Your task to perform on an android device: Show me productivity apps on the Play Store Image 0: 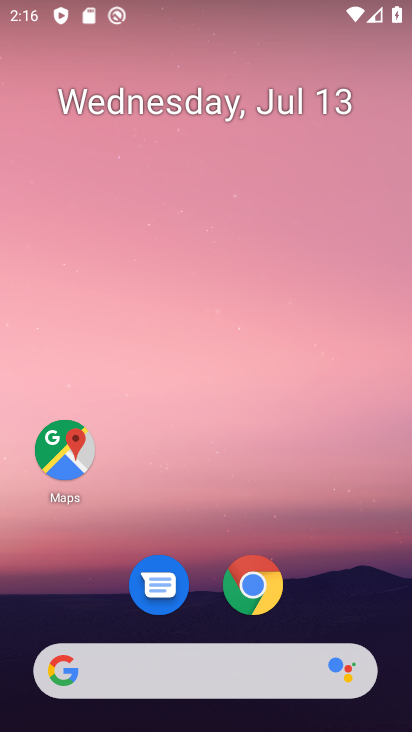
Step 0: press home button
Your task to perform on an android device: Show me productivity apps on the Play Store Image 1: 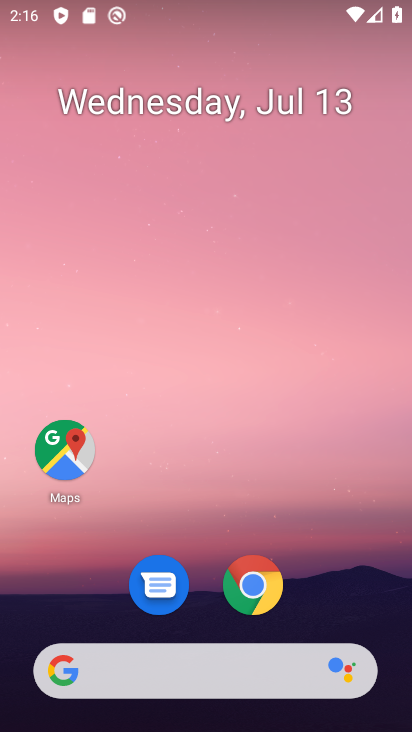
Step 1: drag from (249, 560) to (327, 118)
Your task to perform on an android device: Show me productivity apps on the Play Store Image 2: 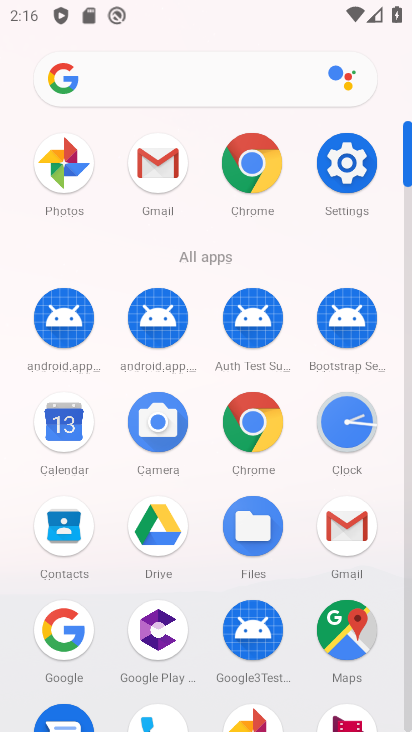
Step 2: drag from (180, 651) to (319, 117)
Your task to perform on an android device: Show me productivity apps on the Play Store Image 3: 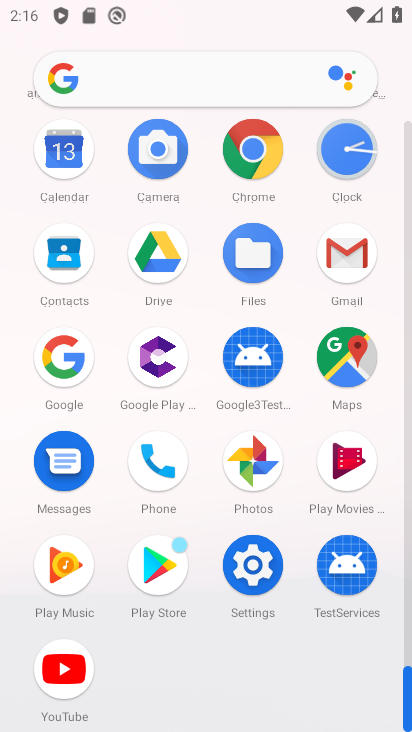
Step 3: click (157, 569)
Your task to perform on an android device: Show me productivity apps on the Play Store Image 4: 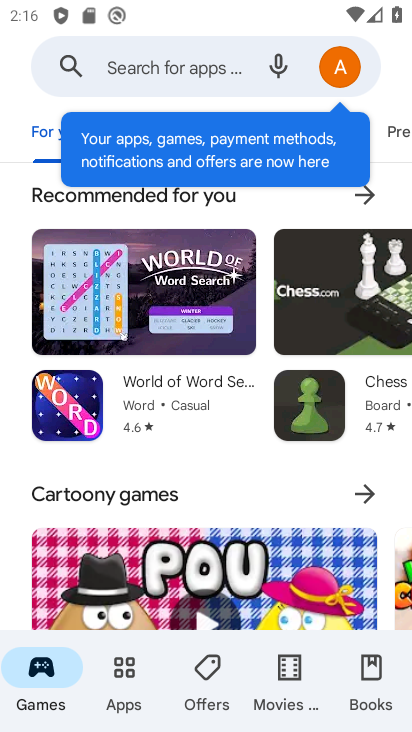
Step 4: click (126, 697)
Your task to perform on an android device: Show me productivity apps on the Play Store Image 5: 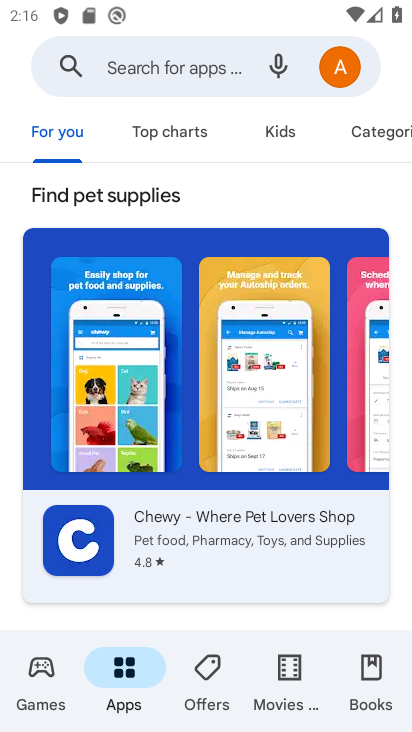
Step 5: click (361, 130)
Your task to perform on an android device: Show me productivity apps on the Play Store Image 6: 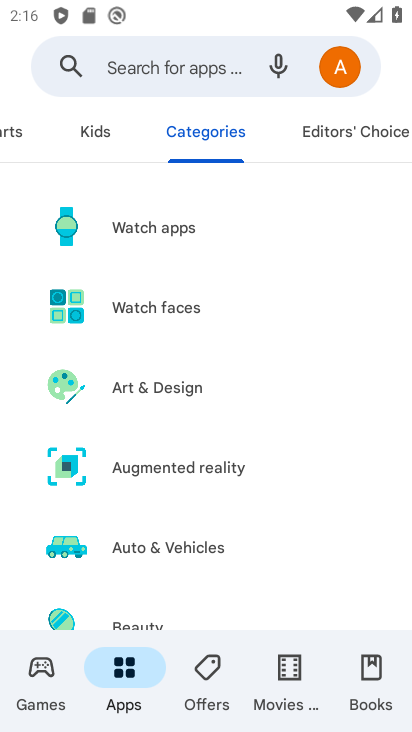
Step 6: drag from (226, 629) to (375, 76)
Your task to perform on an android device: Show me productivity apps on the Play Store Image 7: 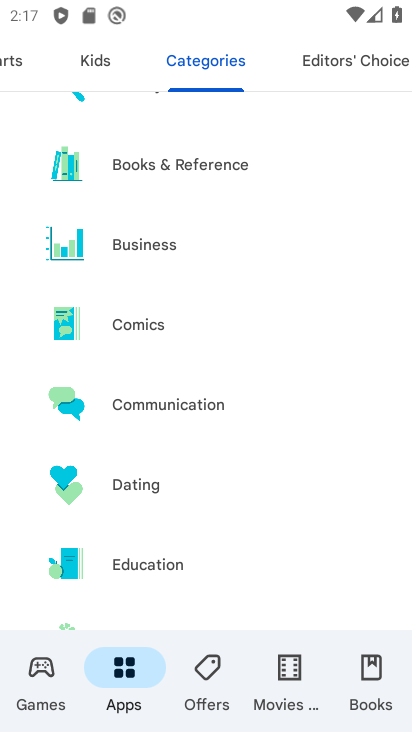
Step 7: drag from (218, 564) to (327, 78)
Your task to perform on an android device: Show me productivity apps on the Play Store Image 8: 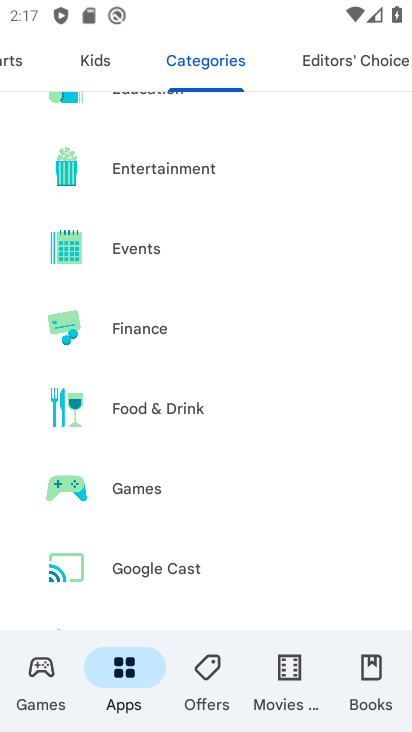
Step 8: drag from (194, 575) to (320, 31)
Your task to perform on an android device: Show me productivity apps on the Play Store Image 9: 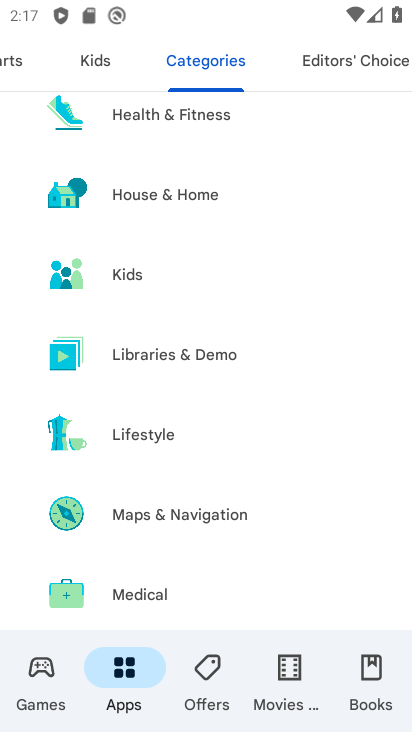
Step 9: drag from (214, 588) to (326, 84)
Your task to perform on an android device: Show me productivity apps on the Play Store Image 10: 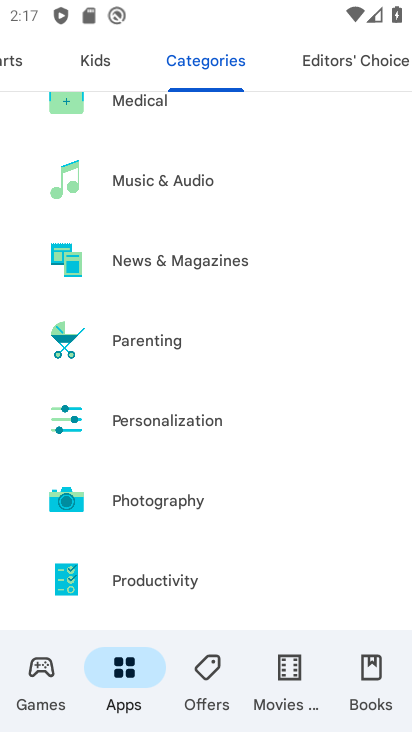
Step 10: click (156, 580)
Your task to perform on an android device: Show me productivity apps on the Play Store Image 11: 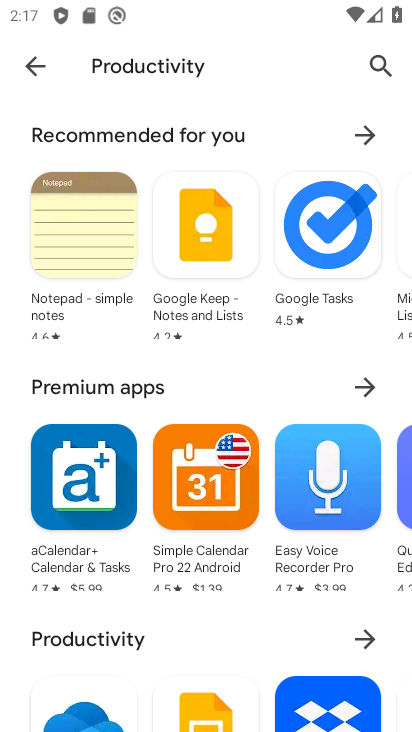
Step 11: task complete